Your task to perform on an android device: change alarm snooze length Image 0: 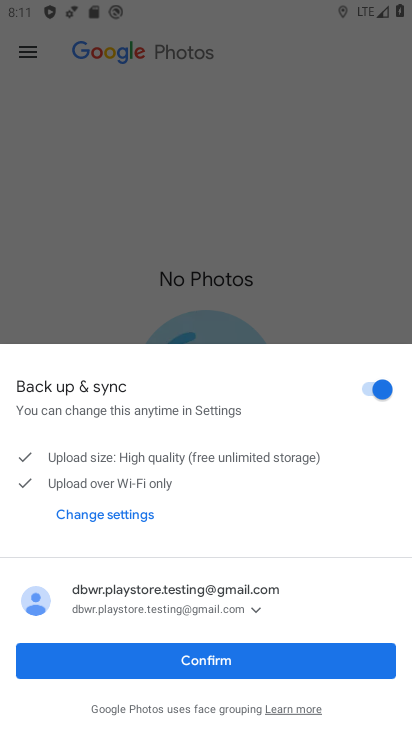
Step 0: press home button
Your task to perform on an android device: change alarm snooze length Image 1: 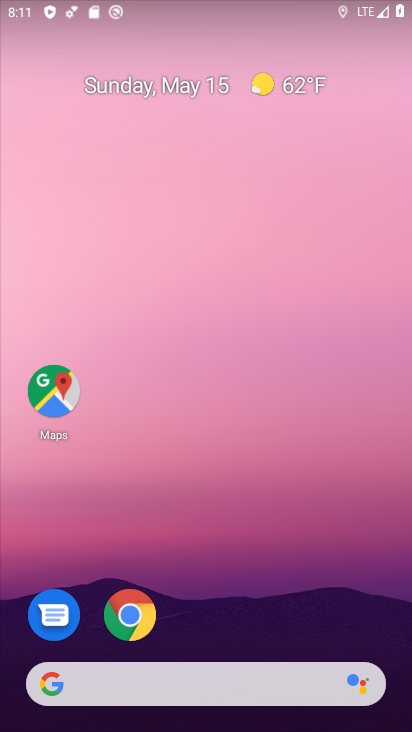
Step 1: drag from (204, 558) to (291, 59)
Your task to perform on an android device: change alarm snooze length Image 2: 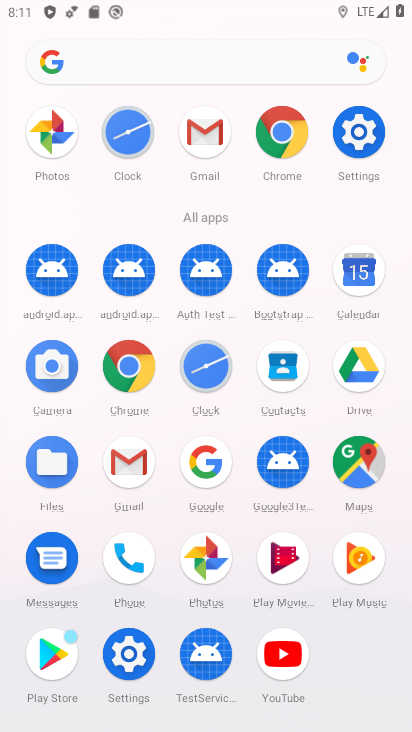
Step 2: click (137, 146)
Your task to perform on an android device: change alarm snooze length Image 3: 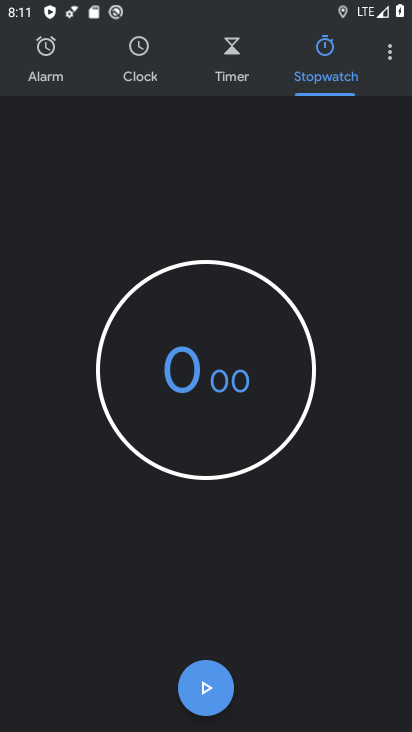
Step 3: click (391, 47)
Your task to perform on an android device: change alarm snooze length Image 4: 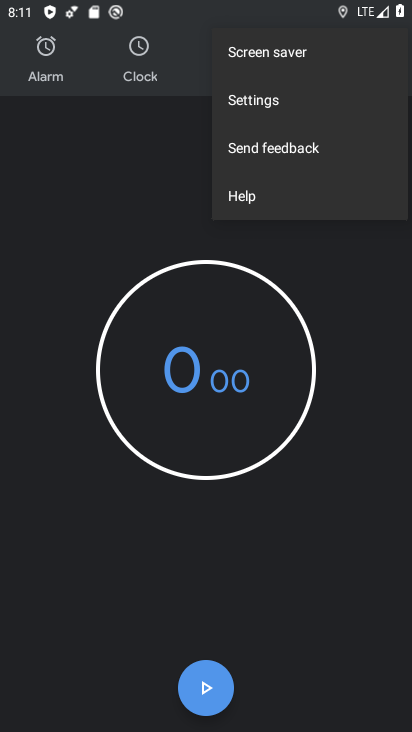
Step 4: click (280, 107)
Your task to perform on an android device: change alarm snooze length Image 5: 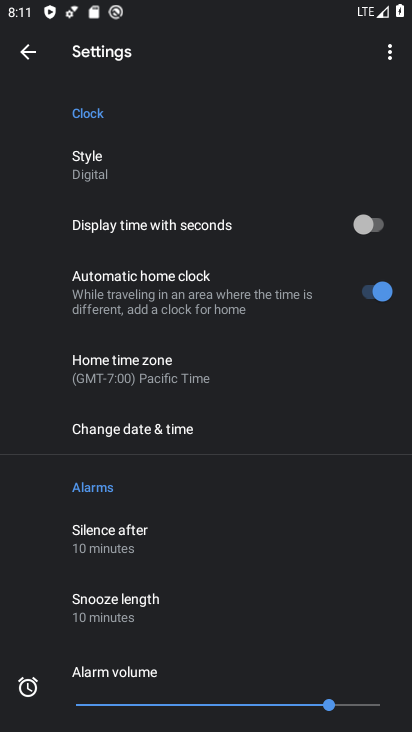
Step 5: click (145, 603)
Your task to perform on an android device: change alarm snooze length Image 6: 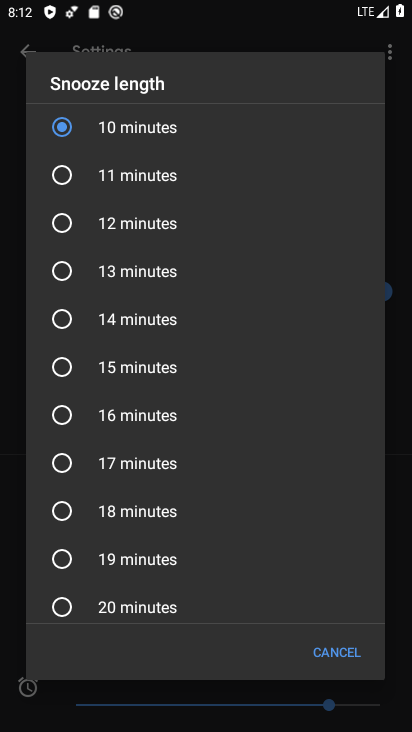
Step 6: click (63, 227)
Your task to perform on an android device: change alarm snooze length Image 7: 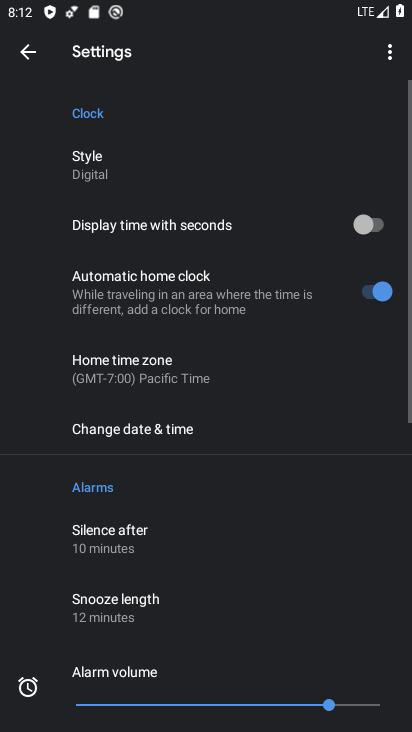
Step 7: task complete